Your task to perform on an android device: toggle notifications settings in the gmail app Image 0: 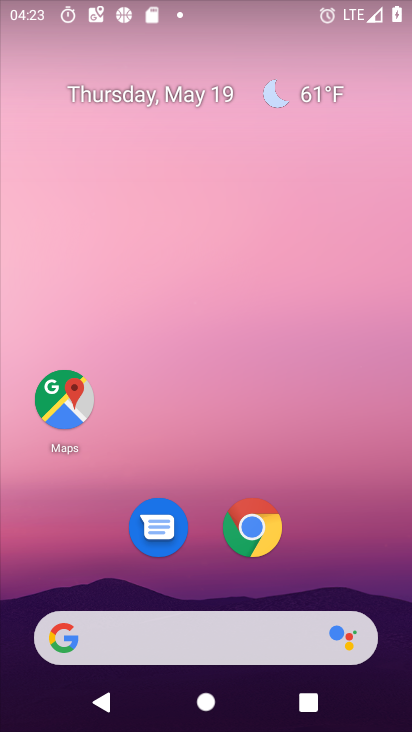
Step 0: drag from (200, 583) to (294, 1)
Your task to perform on an android device: toggle notifications settings in the gmail app Image 1: 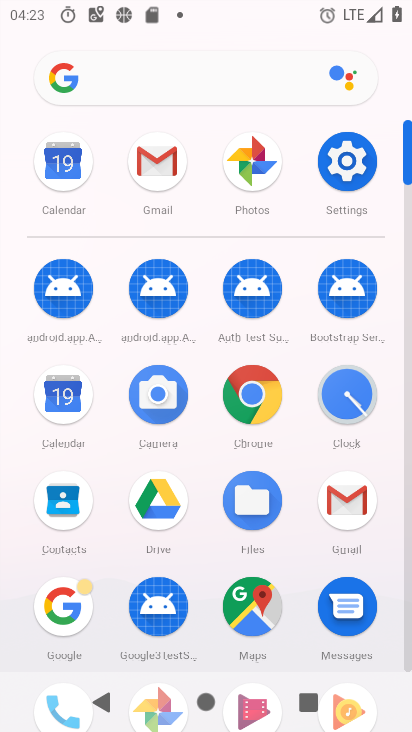
Step 1: click (167, 159)
Your task to perform on an android device: toggle notifications settings in the gmail app Image 2: 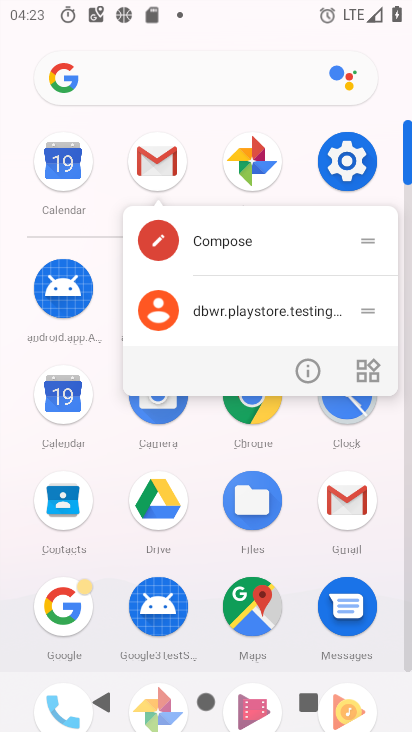
Step 2: click (300, 367)
Your task to perform on an android device: toggle notifications settings in the gmail app Image 3: 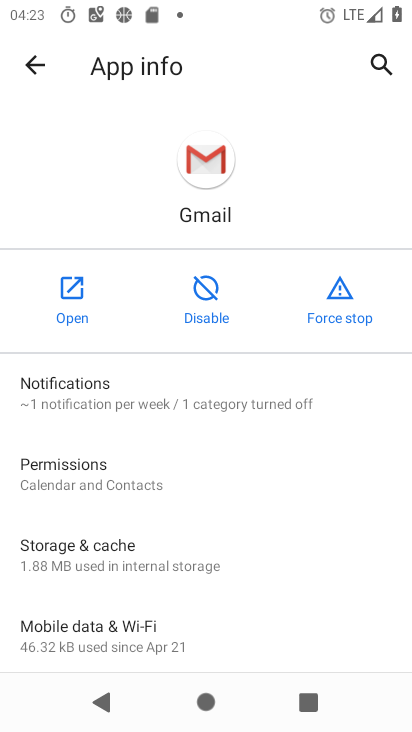
Step 3: click (75, 393)
Your task to perform on an android device: toggle notifications settings in the gmail app Image 4: 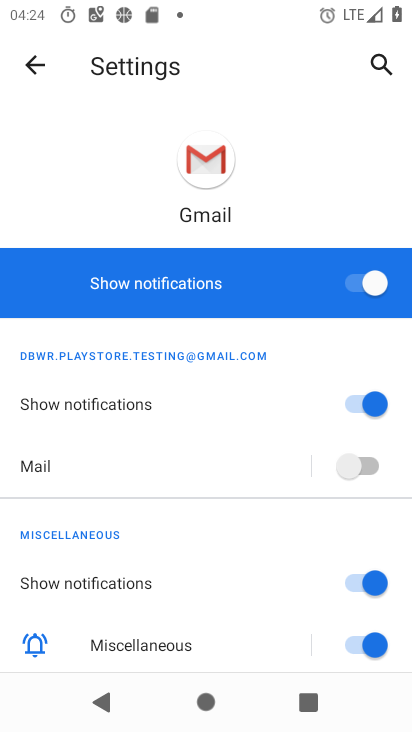
Step 4: click (369, 283)
Your task to perform on an android device: toggle notifications settings in the gmail app Image 5: 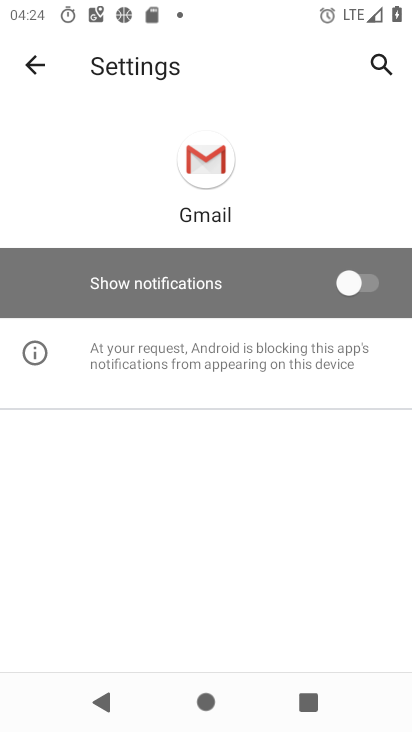
Step 5: task complete